Your task to perform on an android device: Search for Italian restaurants on Maps Image 0: 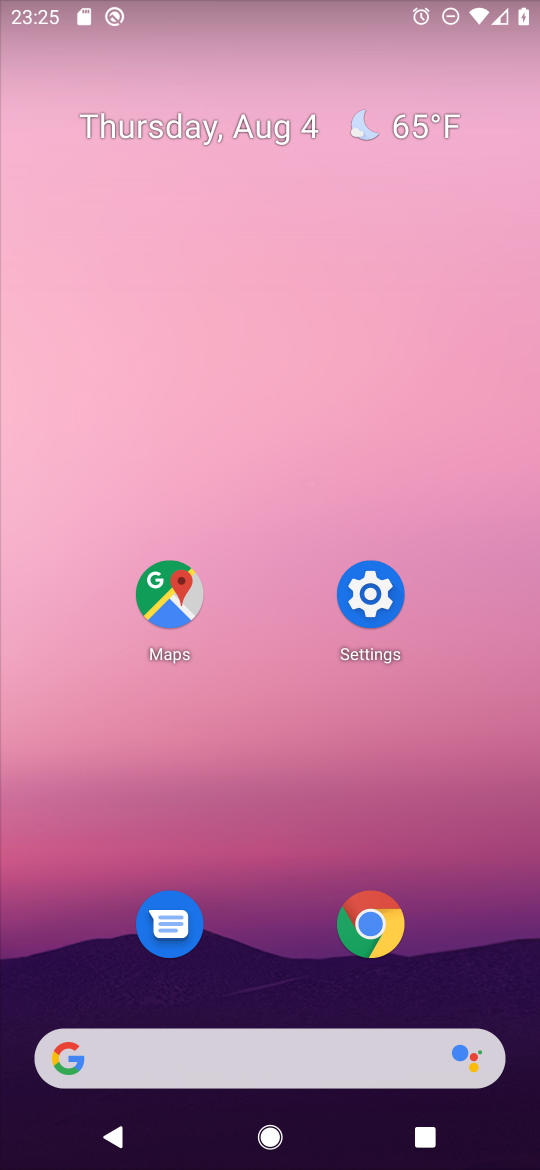
Step 0: click (169, 598)
Your task to perform on an android device: Search for Italian restaurants on Maps Image 1: 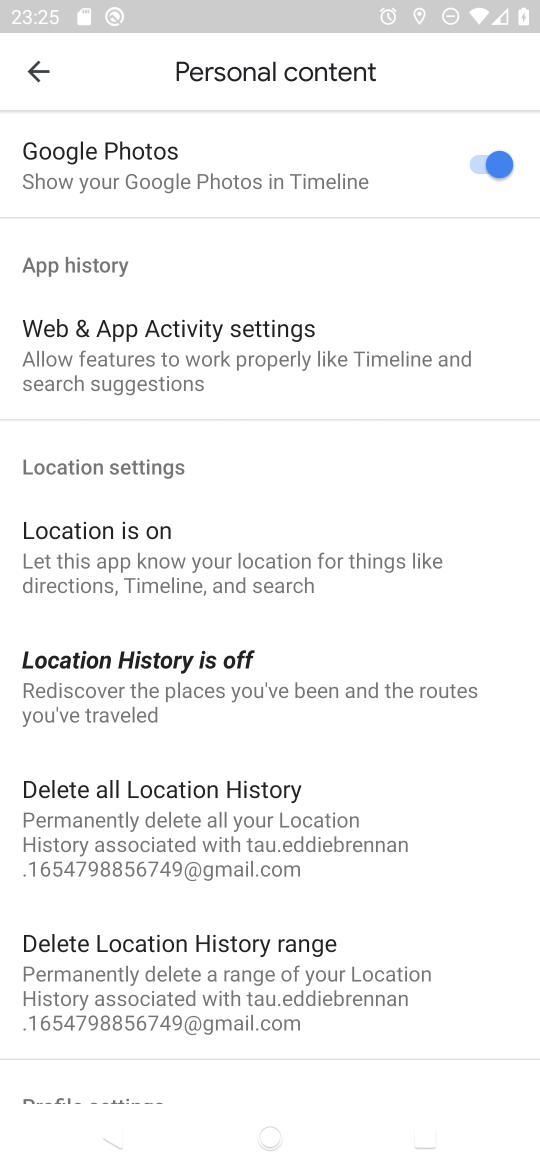
Step 1: click (34, 67)
Your task to perform on an android device: Search for Italian restaurants on Maps Image 2: 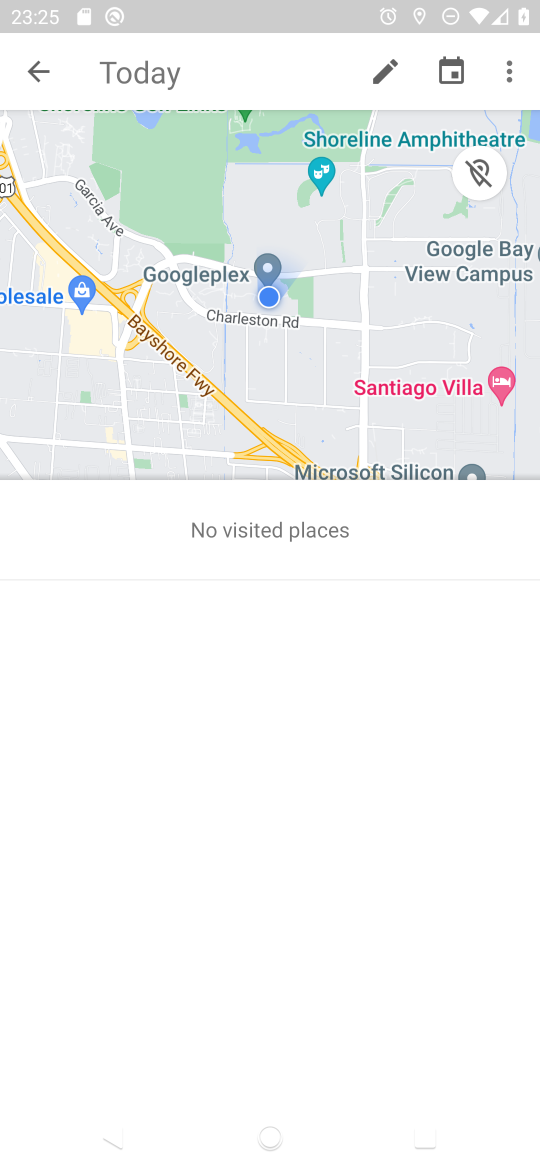
Step 2: click (34, 69)
Your task to perform on an android device: Search for Italian restaurants on Maps Image 3: 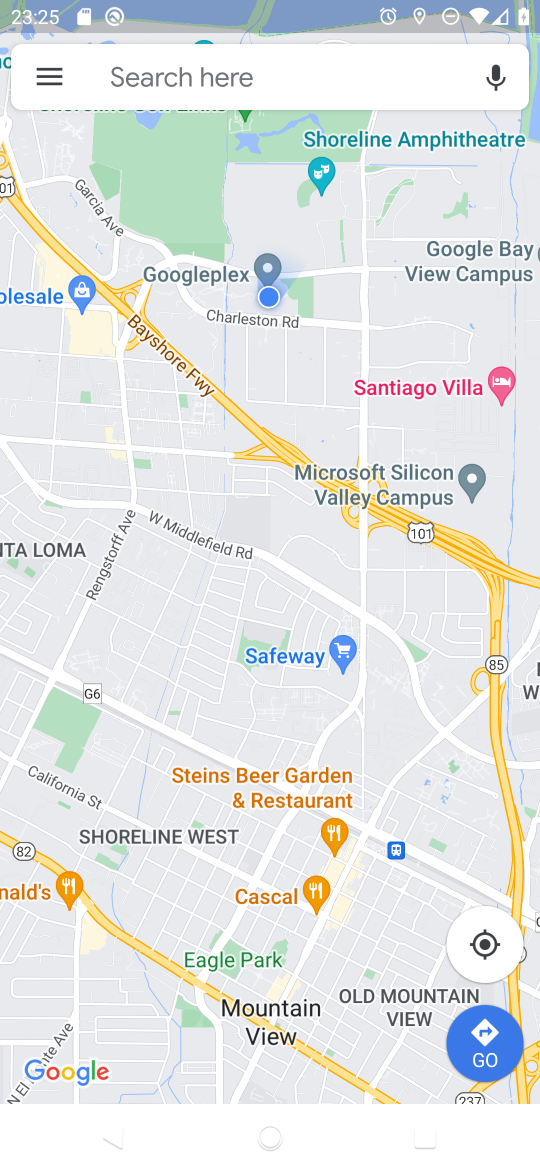
Step 3: click (242, 66)
Your task to perform on an android device: Search for Italian restaurants on Maps Image 4: 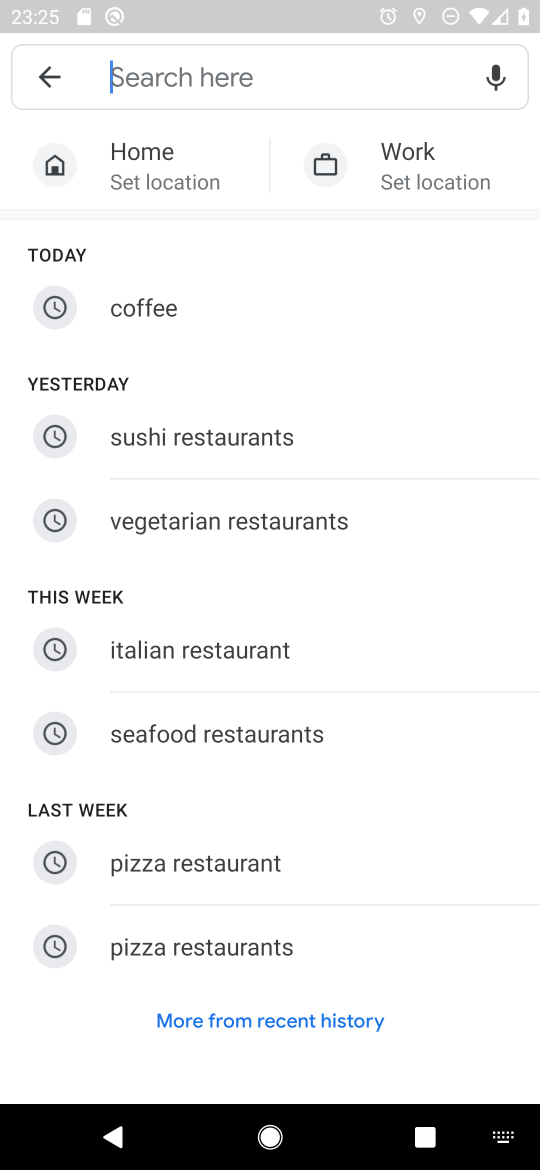
Step 4: click (180, 648)
Your task to perform on an android device: Search for Italian restaurants on Maps Image 5: 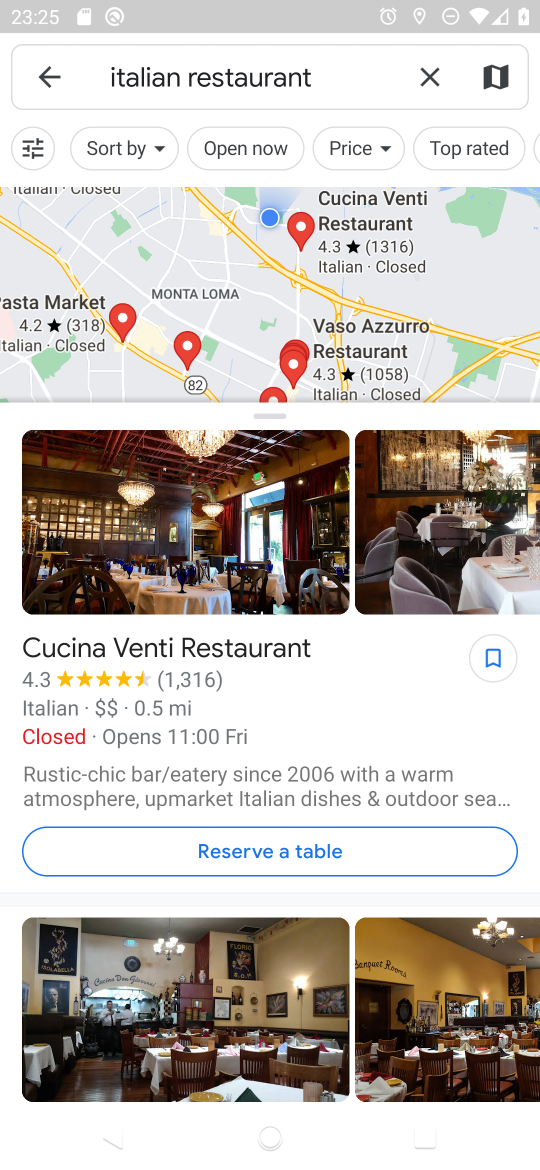
Step 5: task complete